Your task to perform on an android device: toggle notification dots Image 0: 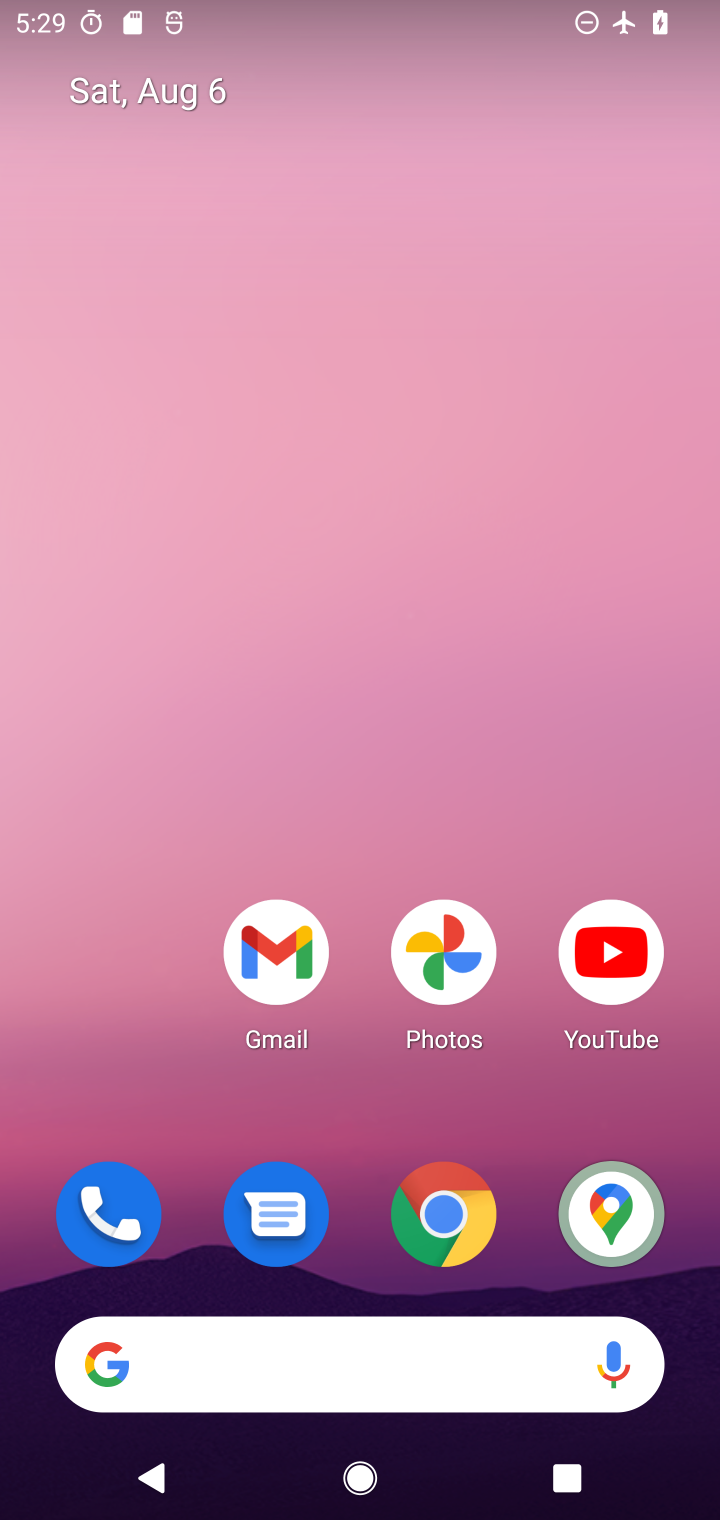
Step 0: drag from (346, 1259) to (380, 234)
Your task to perform on an android device: toggle notification dots Image 1: 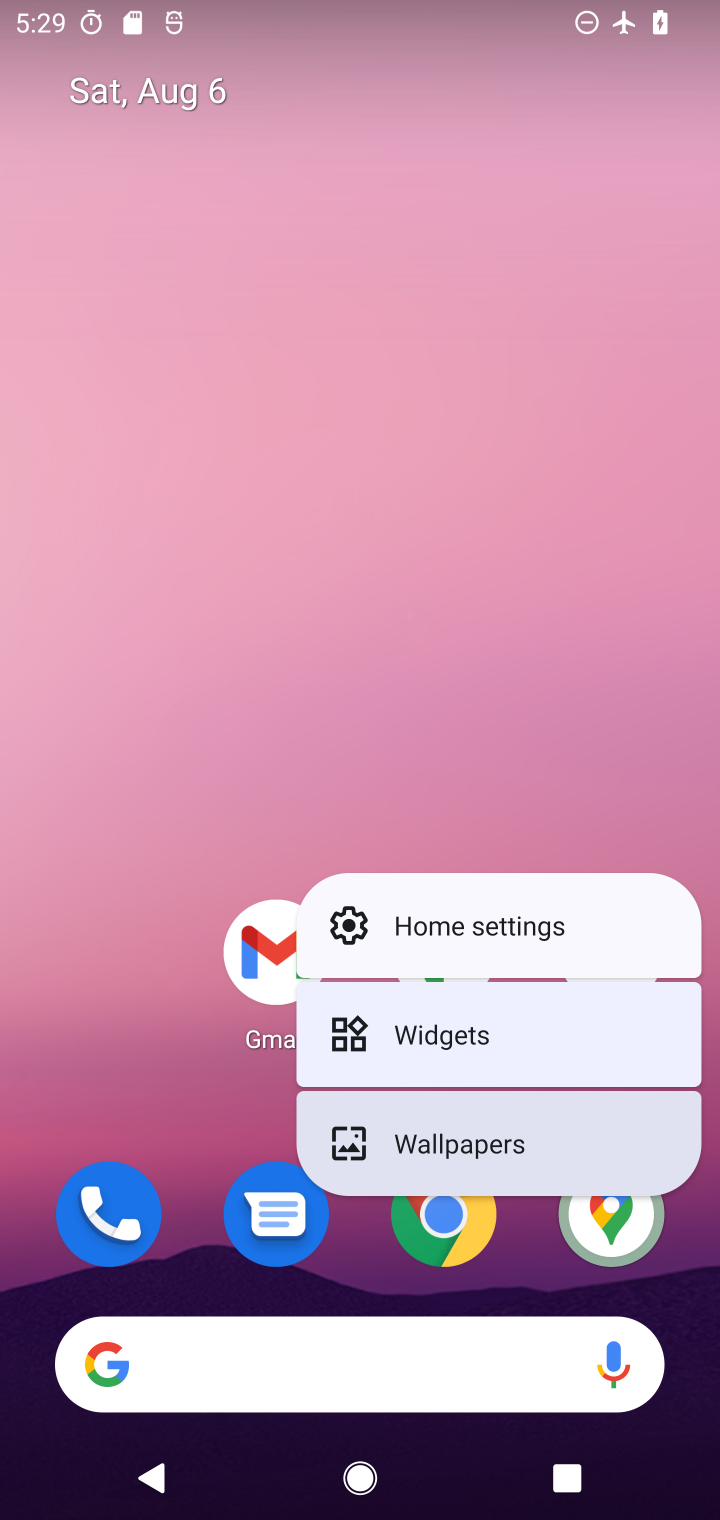
Step 1: click (330, 1275)
Your task to perform on an android device: toggle notification dots Image 2: 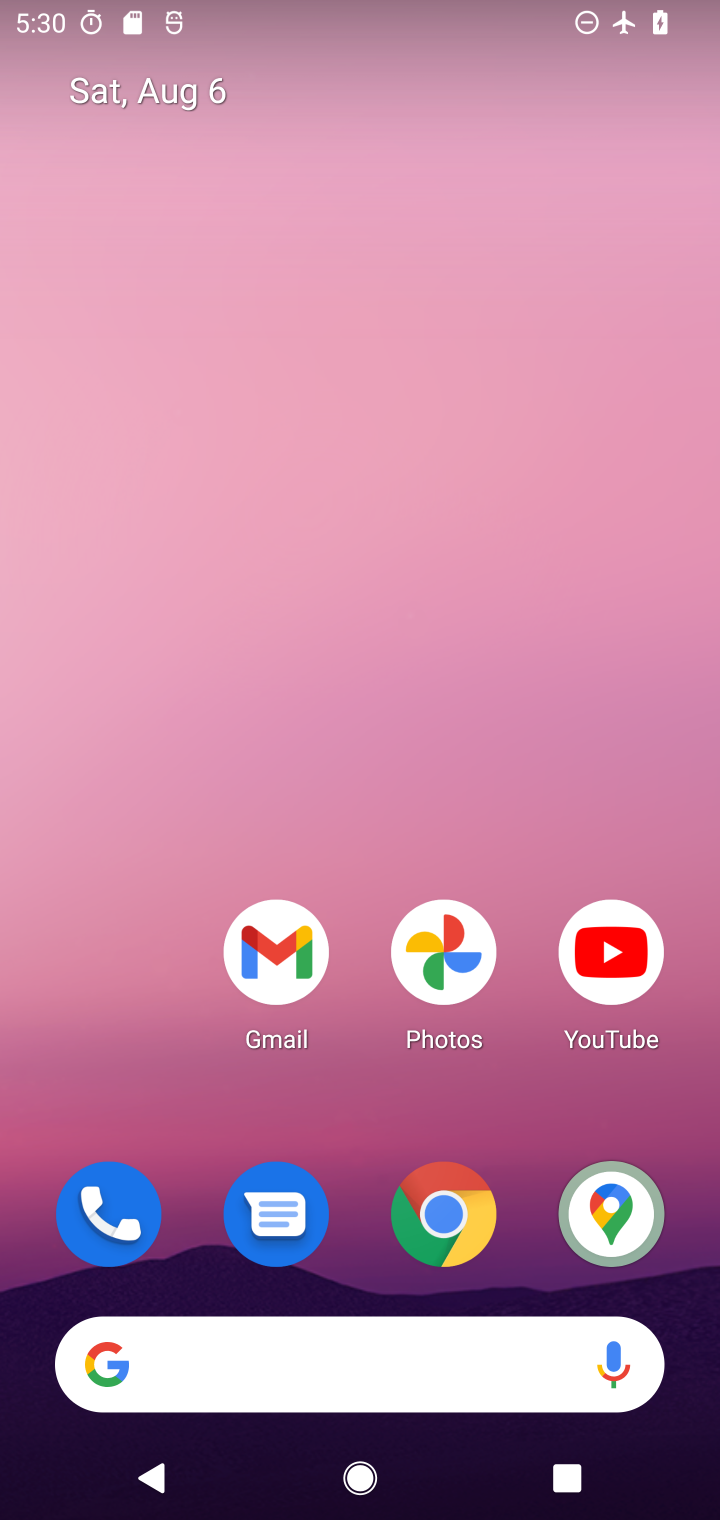
Step 2: drag from (330, 1244) to (375, 491)
Your task to perform on an android device: toggle notification dots Image 3: 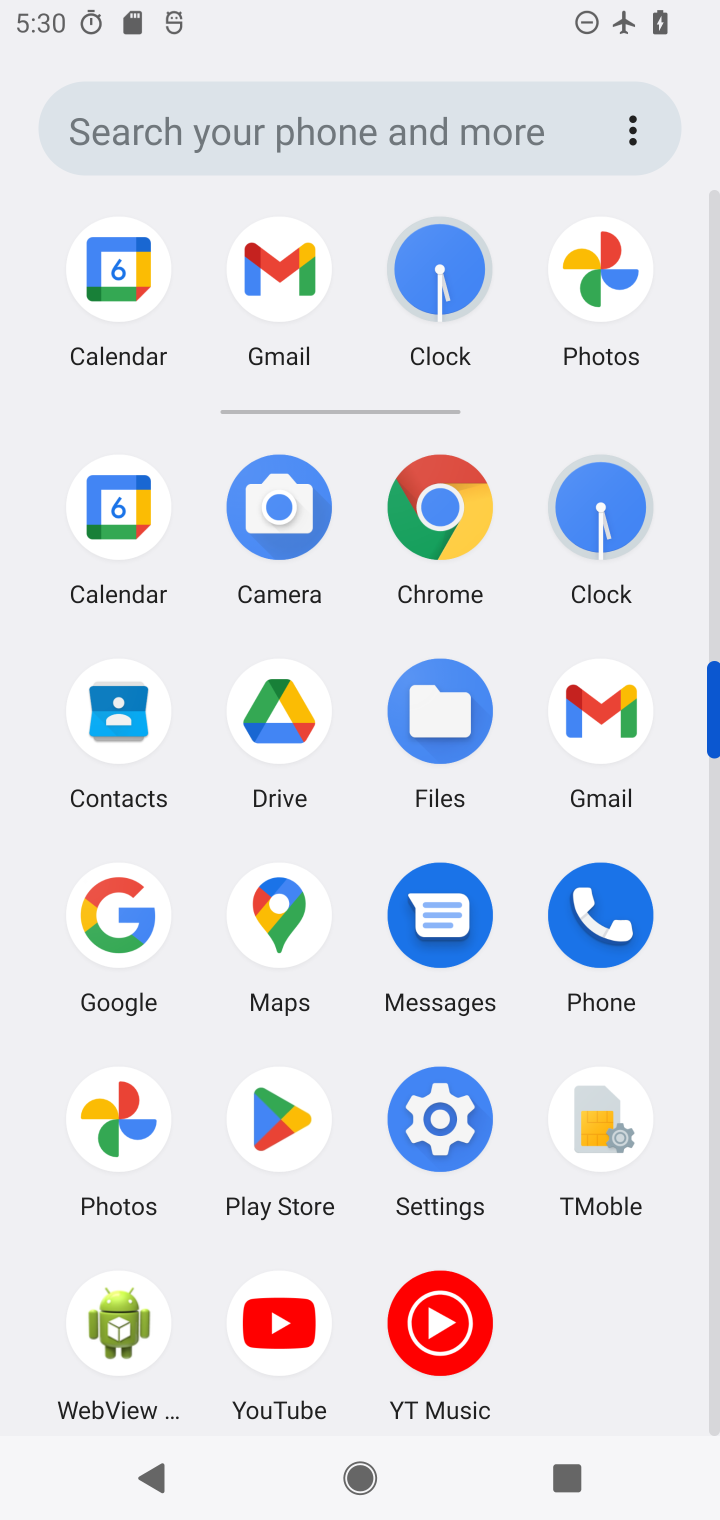
Step 3: click (445, 1125)
Your task to perform on an android device: toggle notification dots Image 4: 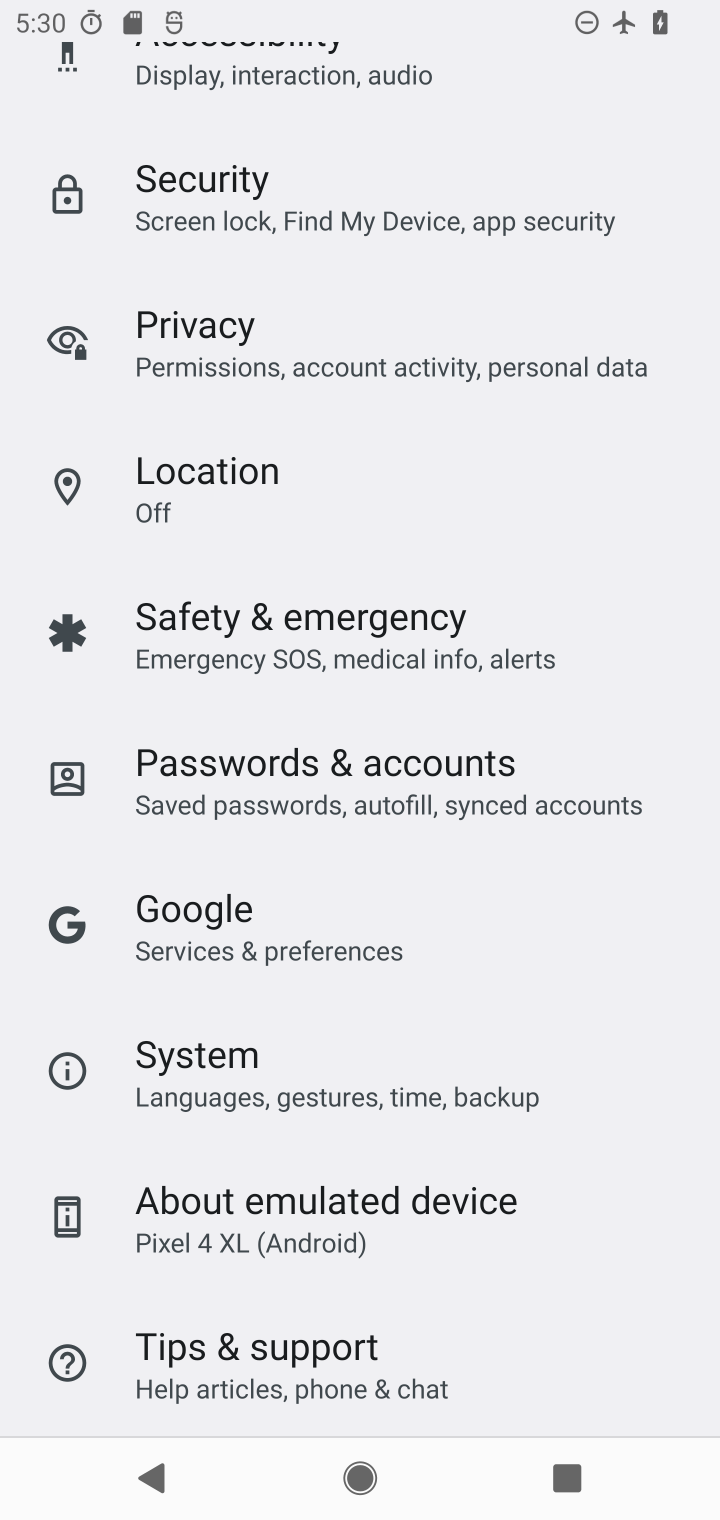
Step 4: drag from (319, 819) to (322, 1377)
Your task to perform on an android device: toggle notification dots Image 5: 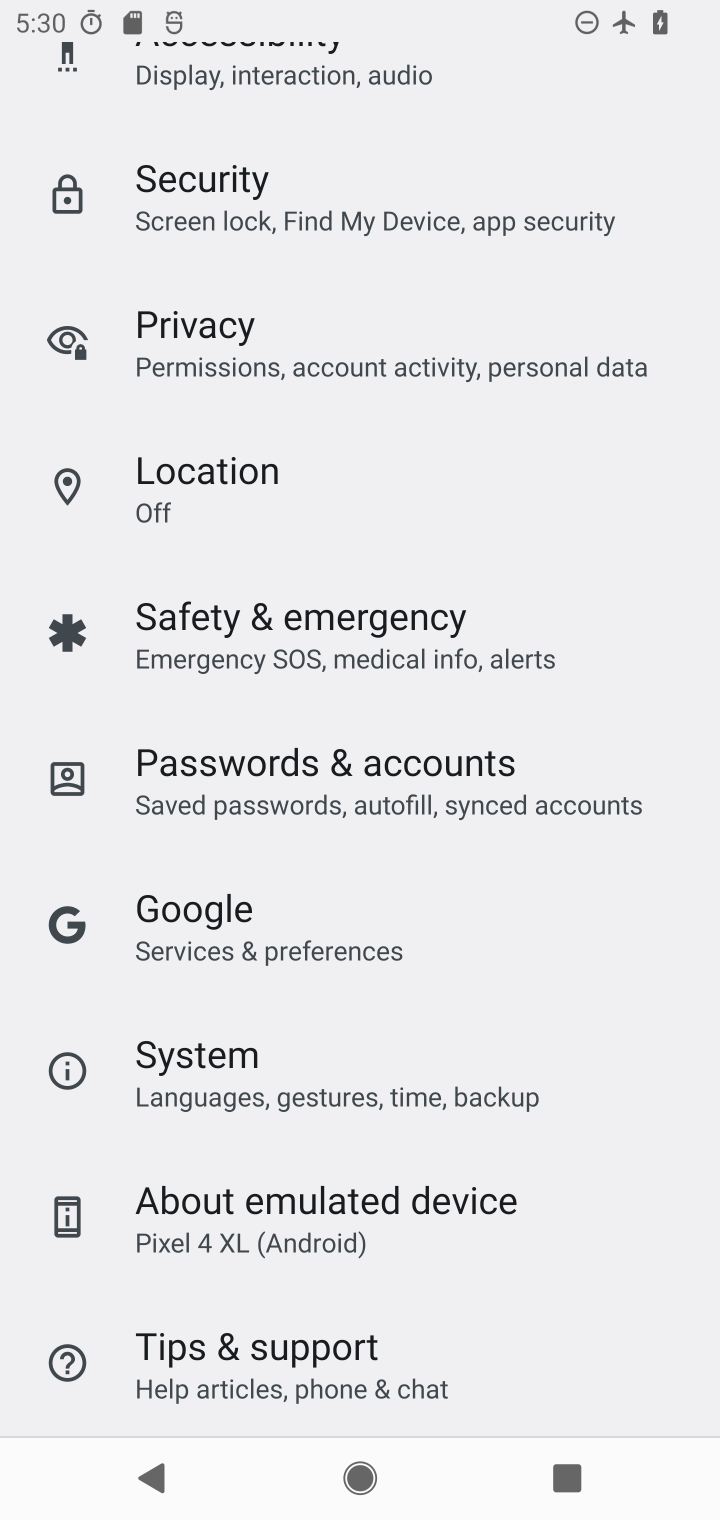
Step 5: drag from (351, 409) to (397, 1519)
Your task to perform on an android device: toggle notification dots Image 6: 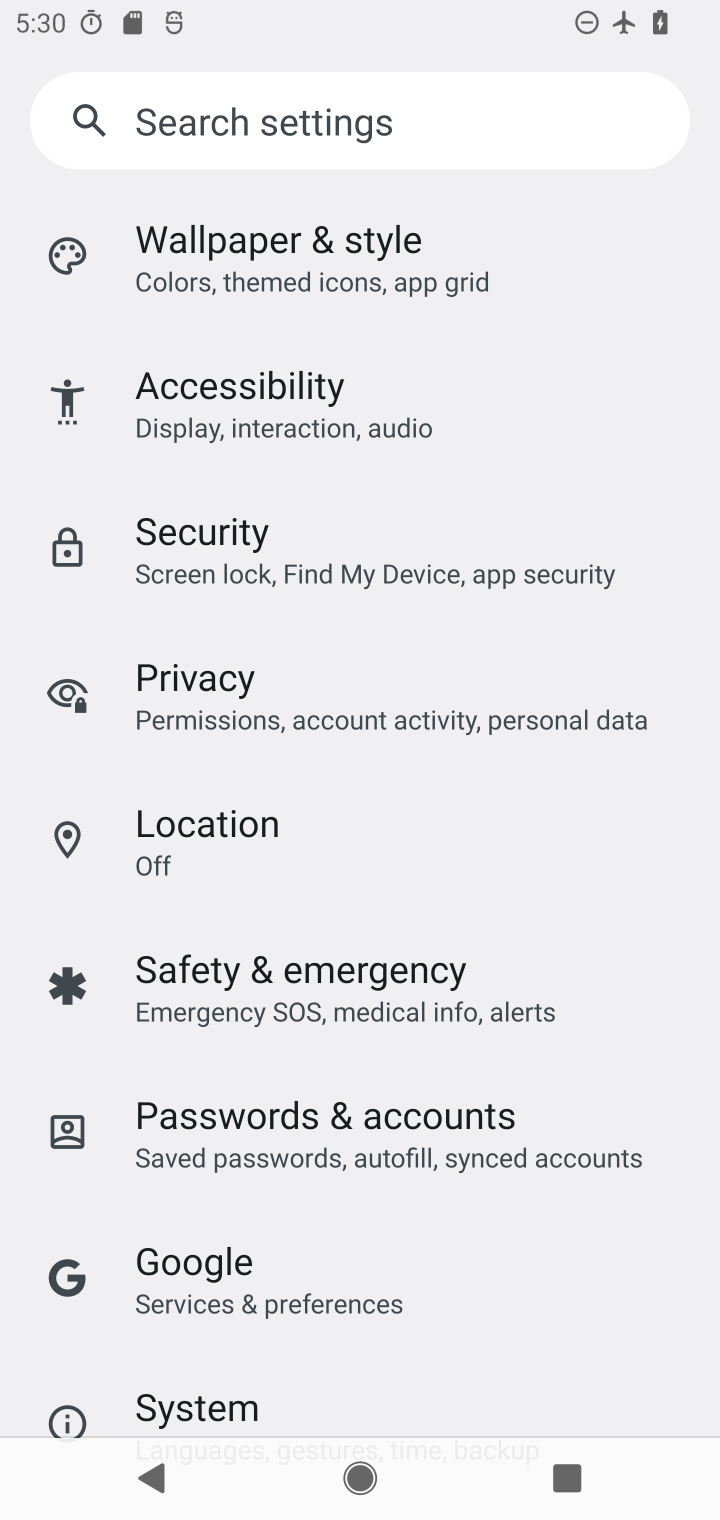
Step 6: drag from (307, 370) to (470, 1458)
Your task to perform on an android device: toggle notification dots Image 7: 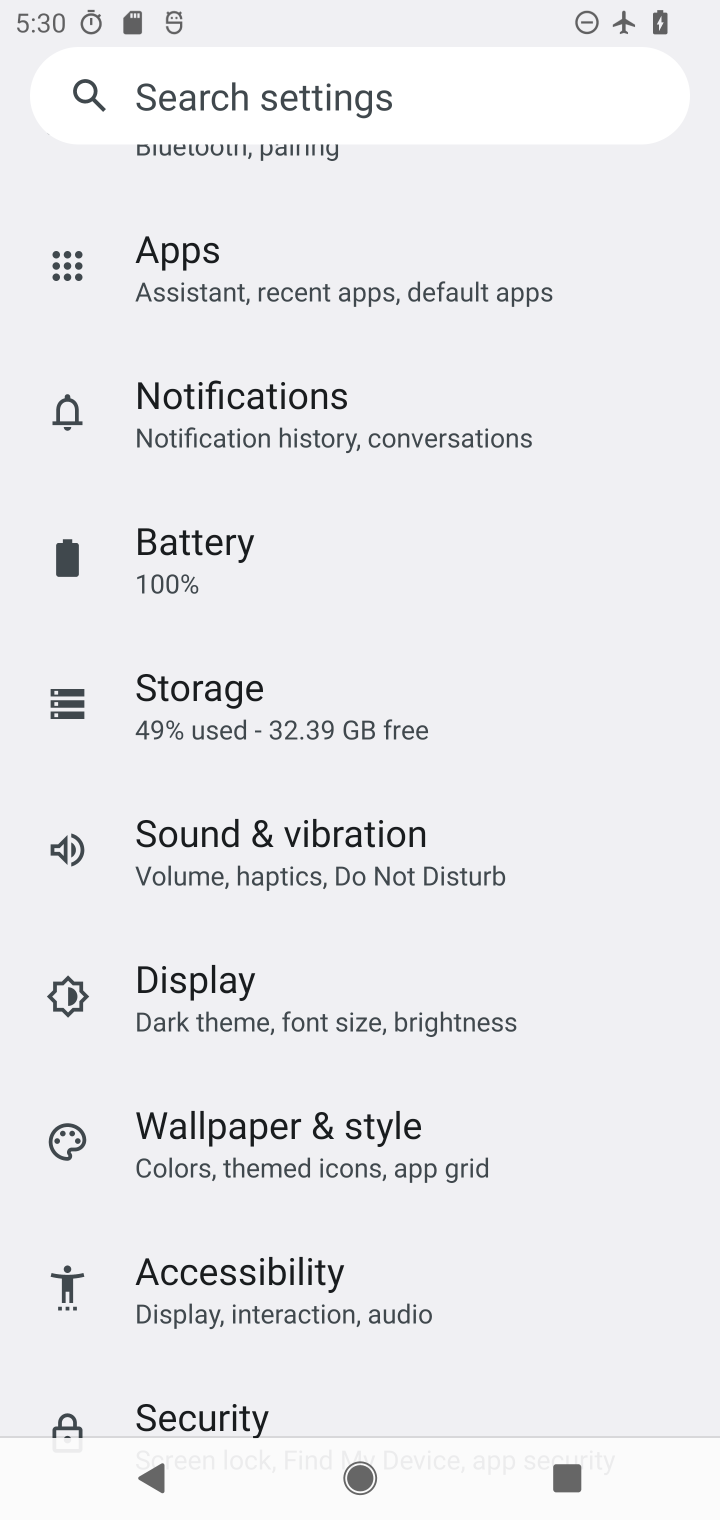
Step 7: click (310, 445)
Your task to perform on an android device: toggle notification dots Image 8: 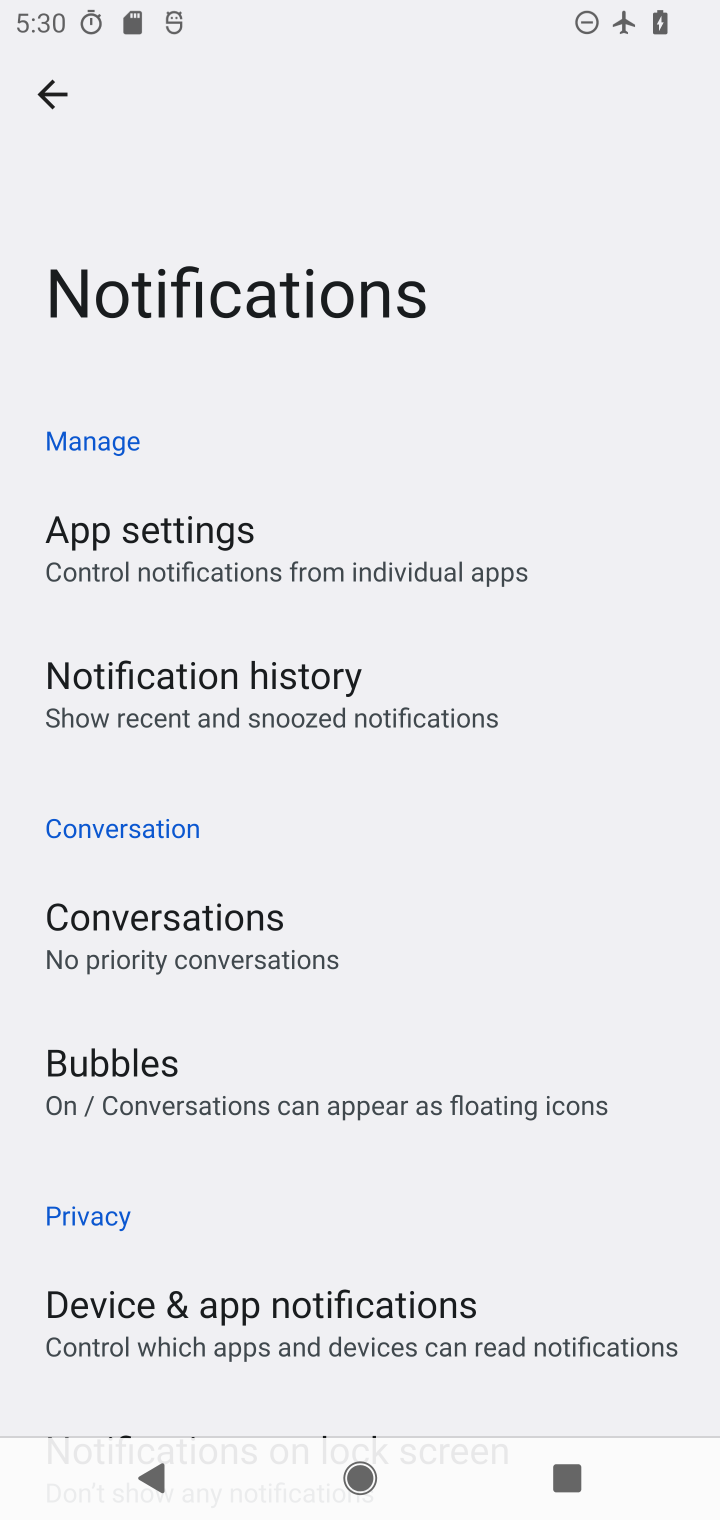
Step 8: drag from (384, 1199) to (360, 458)
Your task to perform on an android device: toggle notification dots Image 9: 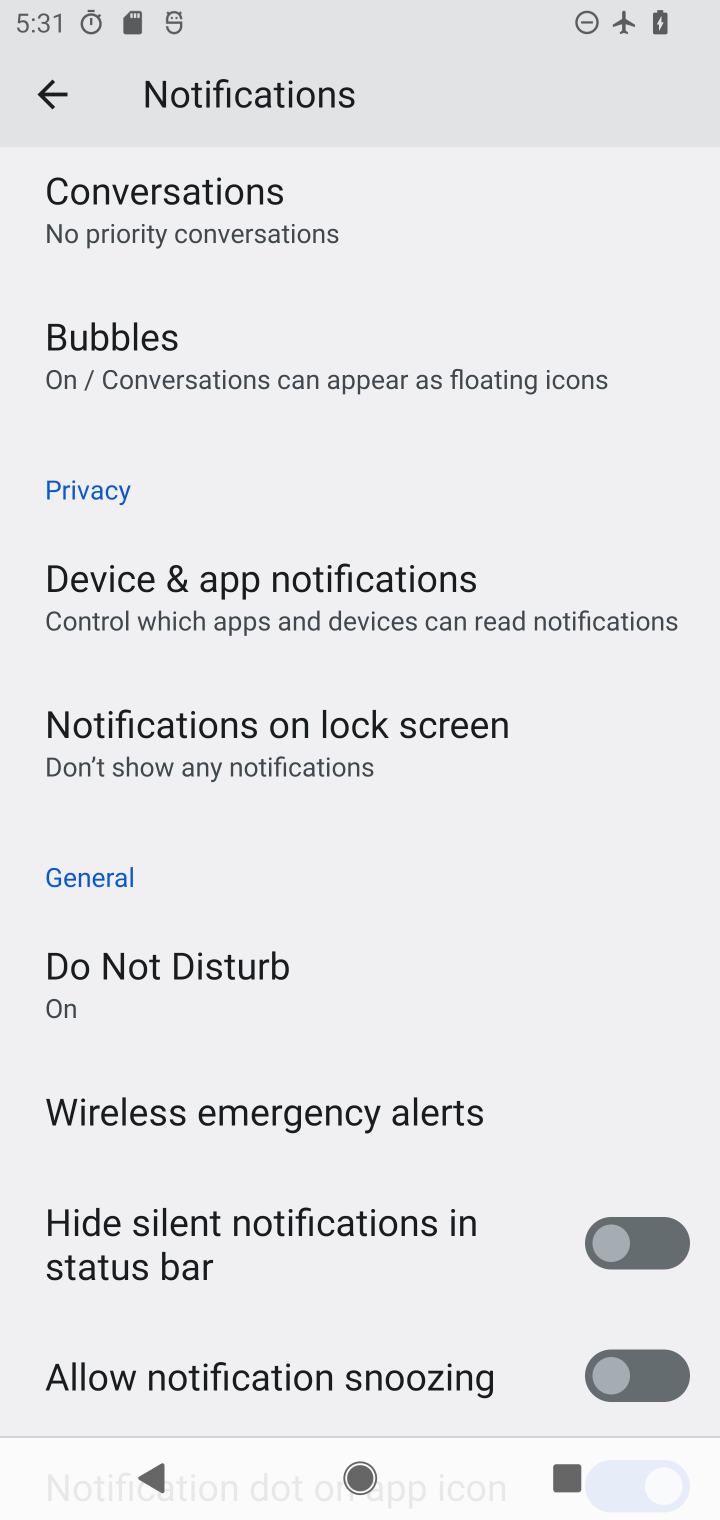
Step 9: drag from (444, 1259) to (422, 459)
Your task to perform on an android device: toggle notification dots Image 10: 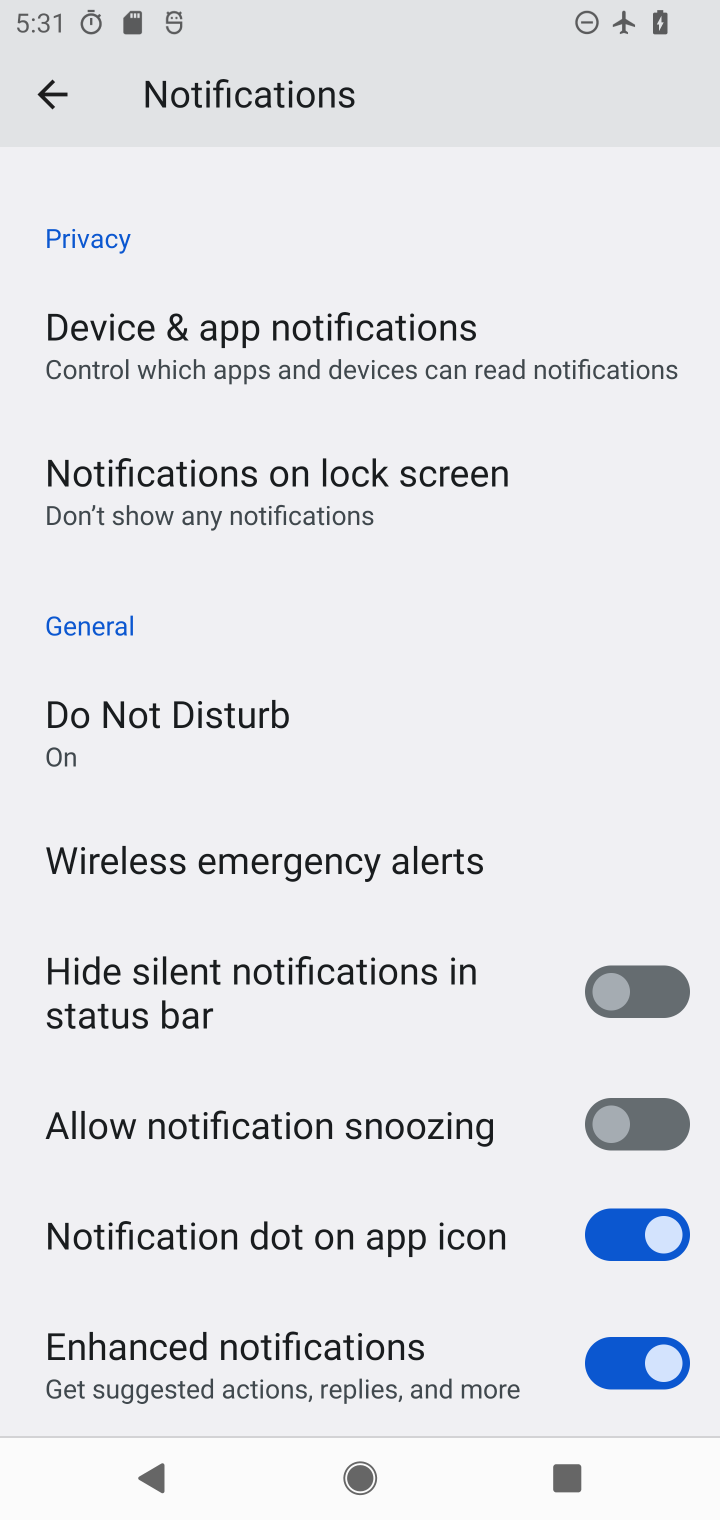
Step 10: click (598, 1238)
Your task to perform on an android device: toggle notification dots Image 11: 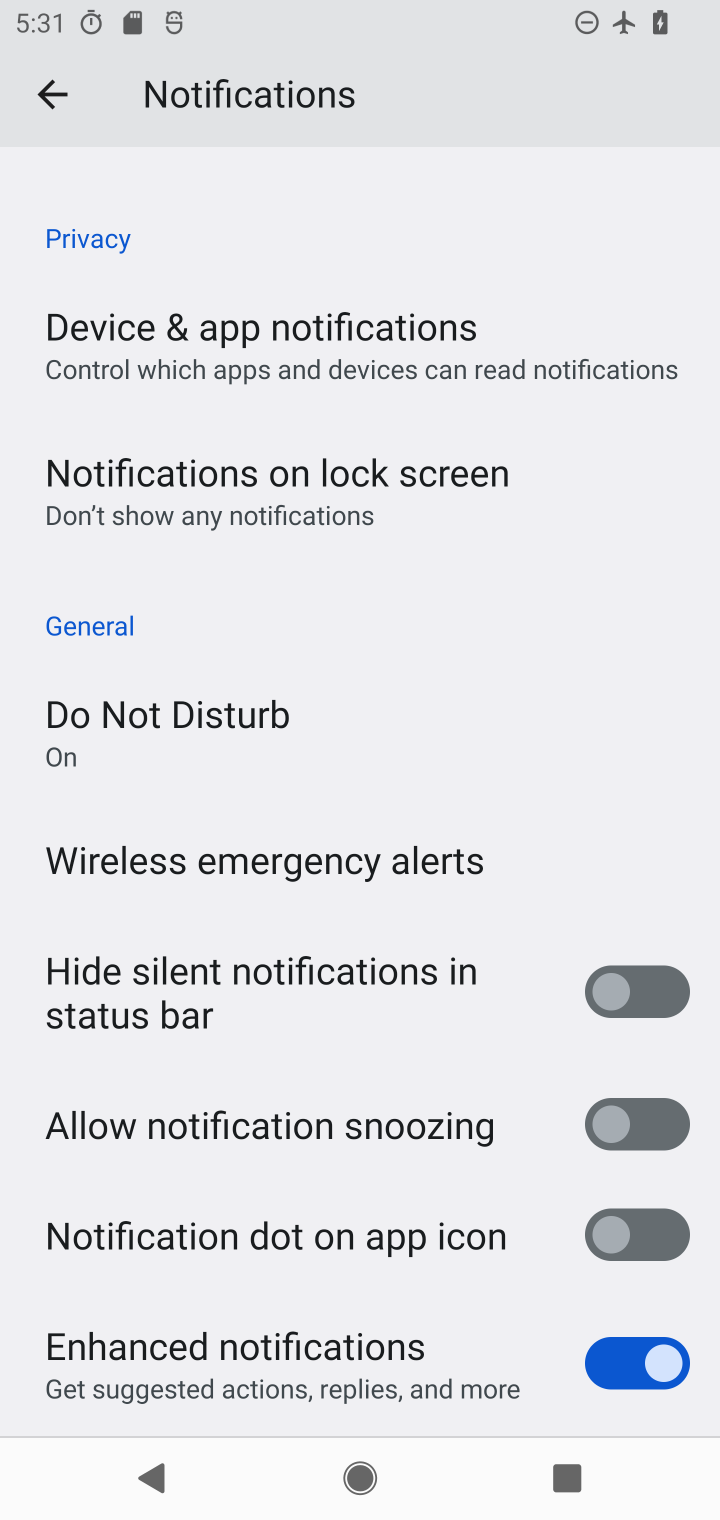
Step 11: task complete